Your task to perform on an android device: What is the recent news? Image 0: 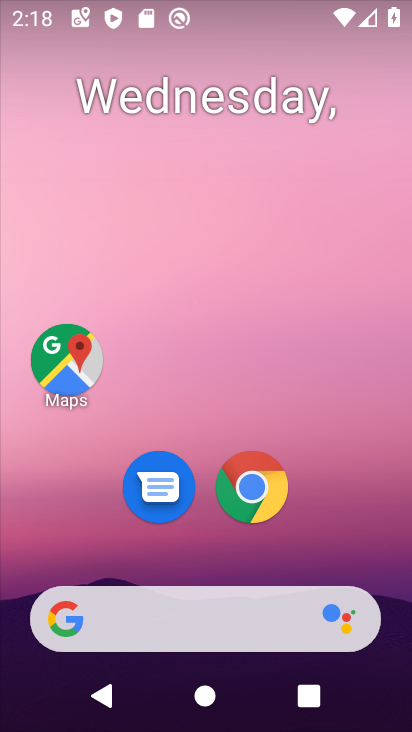
Step 0: drag from (45, 231) to (369, 282)
Your task to perform on an android device: What is the recent news? Image 1: 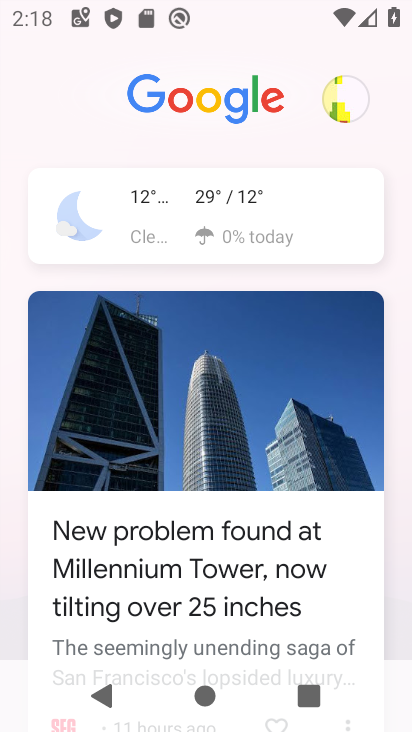
Step 1: task complete